Your task to perform on an android device: toggle show notifications on the lock screen Image 0: 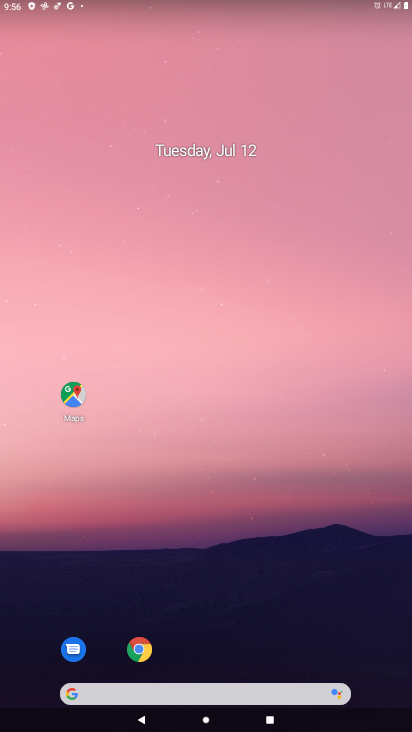
Step 0: drag from (297, 619) to (311, 220)
Your task to perform on an android device: toggle show notifications on the lock screen Image 1: 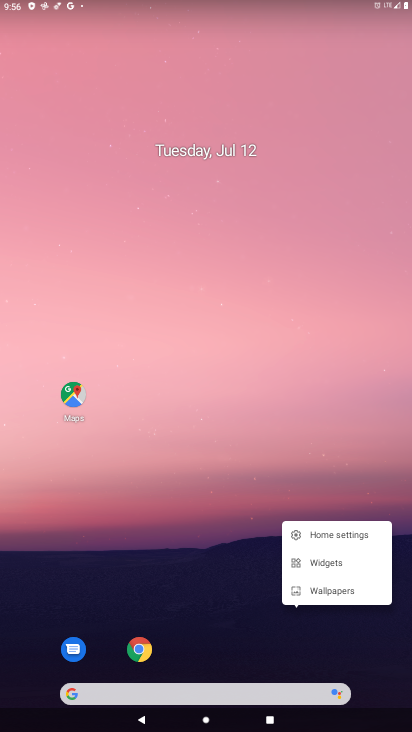
Step 1: click (213, 409)
Your task to perform on an android device: toggle show notifications on the lock screen Image 2: 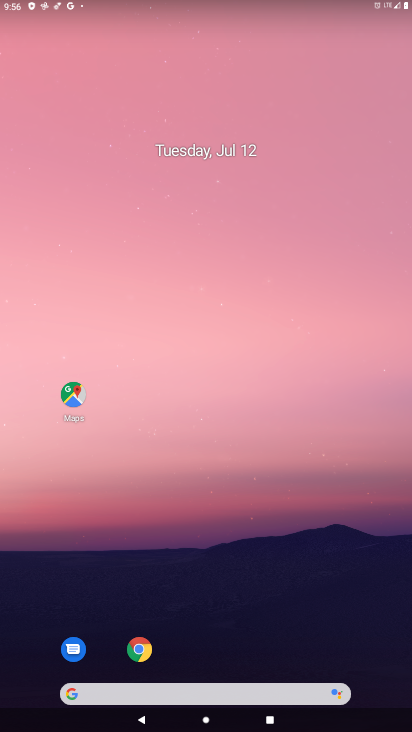
Step 2: drag from (254, 644) to (298, 96)
Your task to perform on an android device: toggle show notifications on the lock screen Image 3: 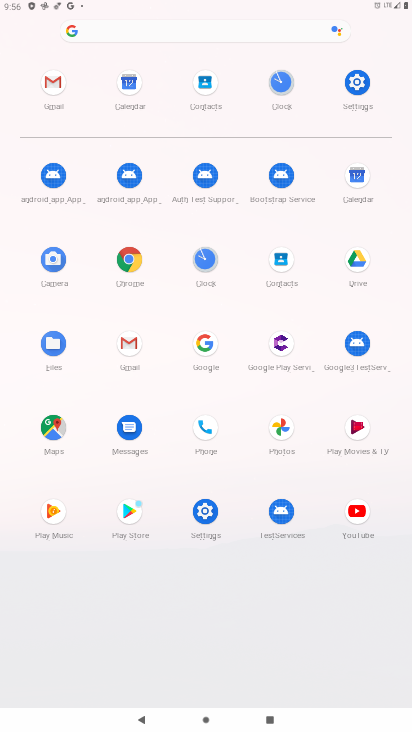
Step 3: click (353, 93)
Your task to perform on an android device: toggle show notifications on the lock screen Image 4: 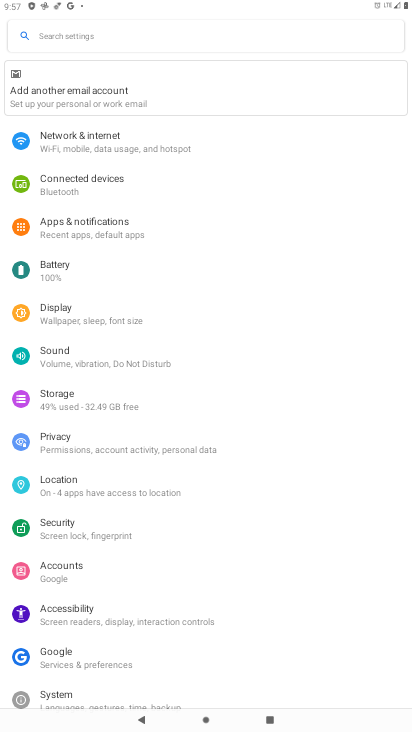
Step 4: click (129, 496)
Your task to perform on an android device: toggle show notifications on the lock screen Image 5: 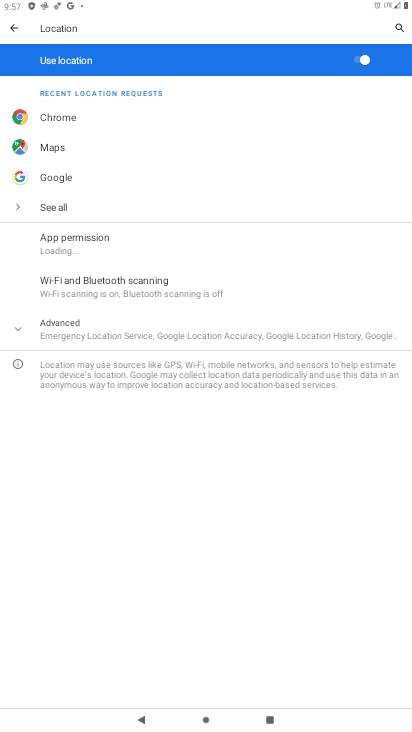
Step 5: click (10, 31)
Your task to perform on an android device: toggle show notifications on the lock screen Image 6: 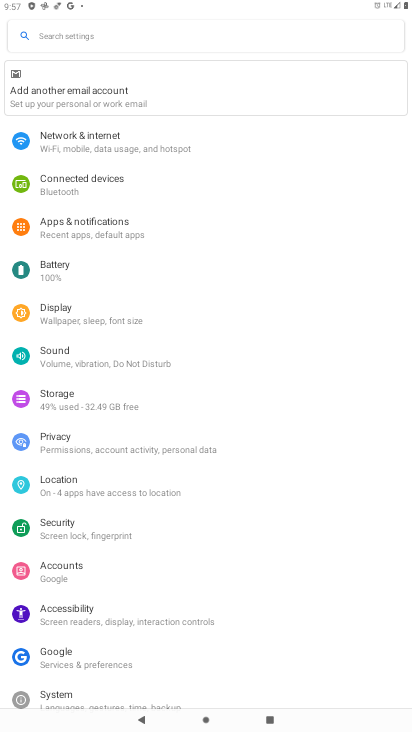
Step 6: click (125, 240)
Your task to perform on an android device: toggle show notifications on the lock screen Image 7: 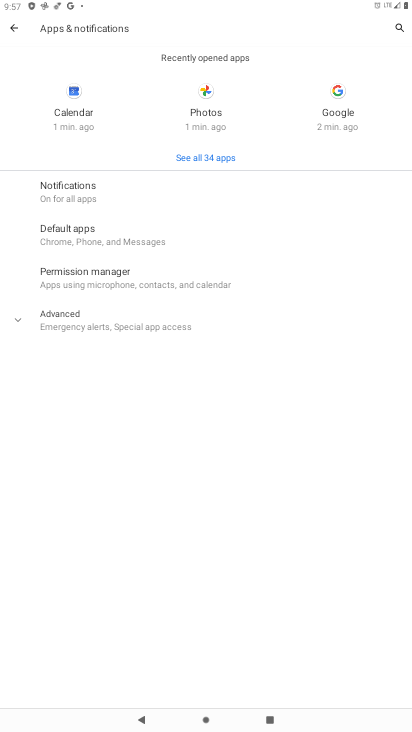
Step 7: click (159, 192)
Your task to perform on an android device: toggle show notifications on the lock screen Image 8: 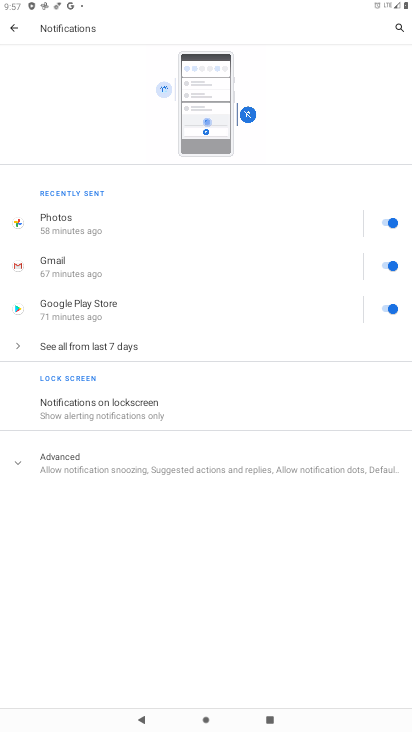
Step 8: click (113, 404)
Your task to perform on an android device: toggle show notifications on the lock screen Image 9: 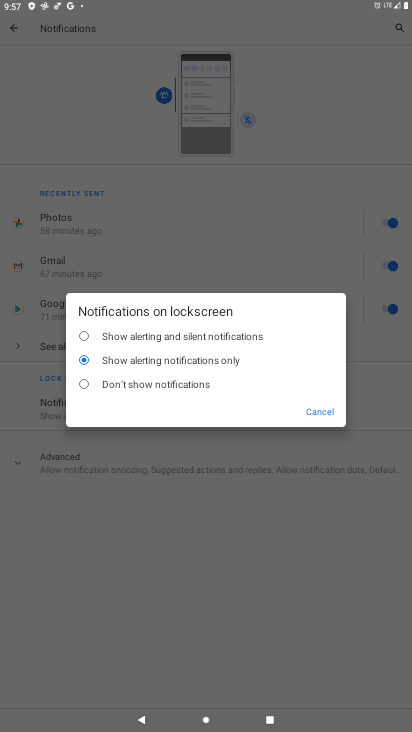
Step 9: click (177, 350)
Your task to perform on an android device: toggle show notifications on the lock screen Image 10: 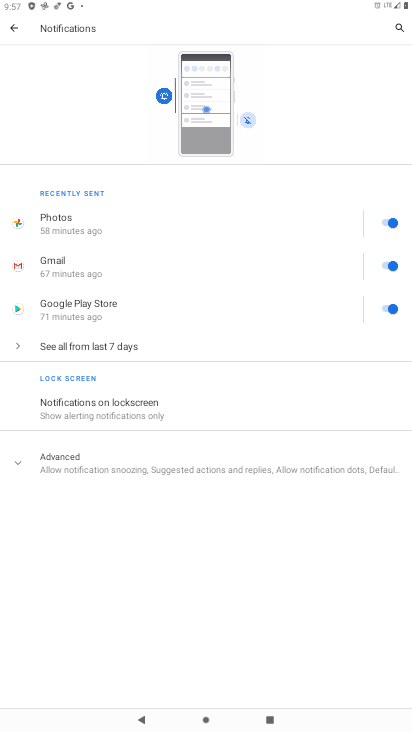
Step 10: task complete